Your task to perform on an android device: Open Yahoo.com Image 0: 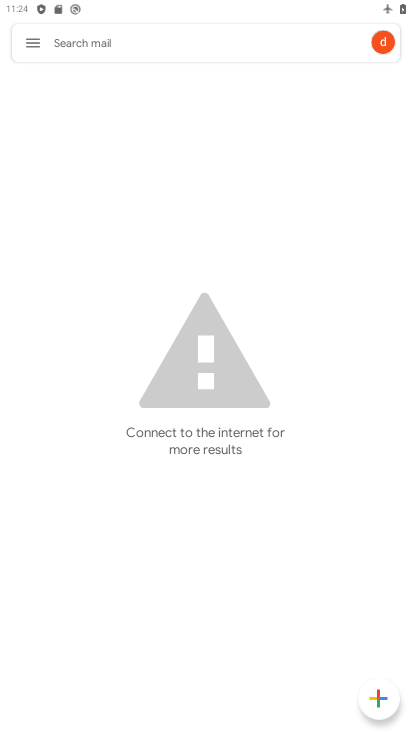
Step 0: press home button
Your task to perform on an android device: Open Yahoo.com Image 1: 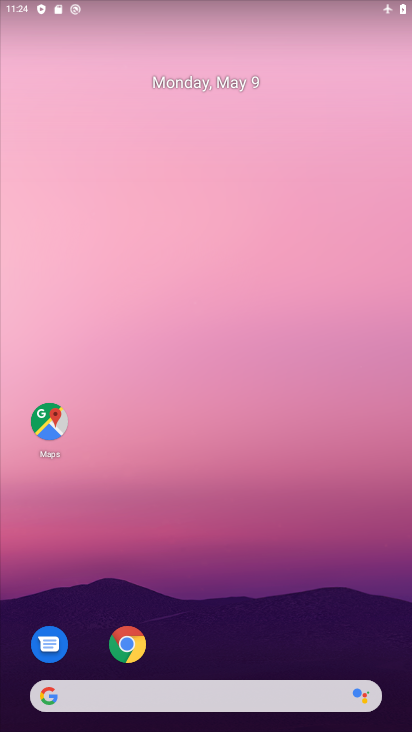
Step 1: click (135, 646)
Your task to perform on an android device: Open Yahoo.com Image 2: 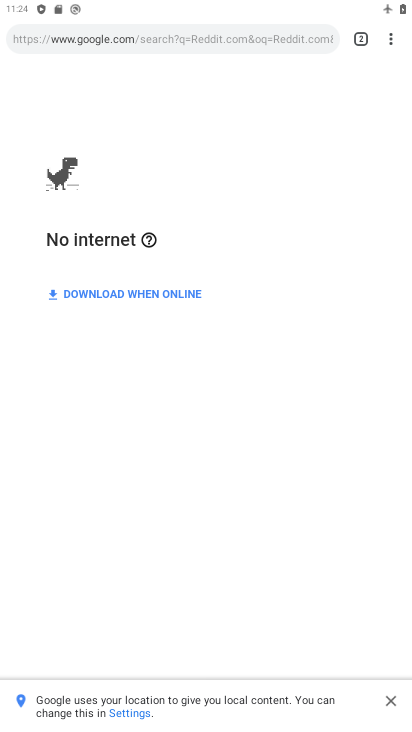
Step 2: click (363, 38)
Your task to perform on an android device: Open Yahoo.com Image 3: 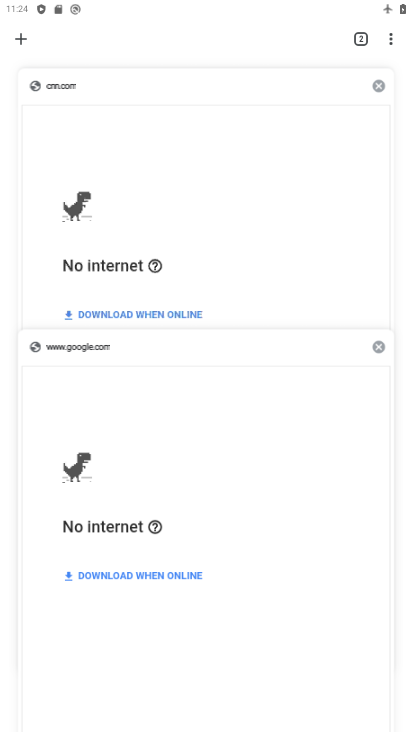
Step 3: click (20, 41)
Your task to perform on an android device: Open Yahoo.com Image 4: 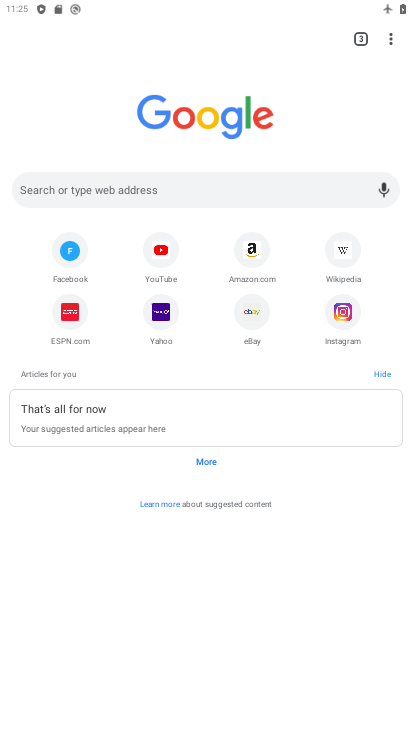
Step 4: click (169, 300)
Your task to perform on an android device: Open Yahoo.com Image 5: 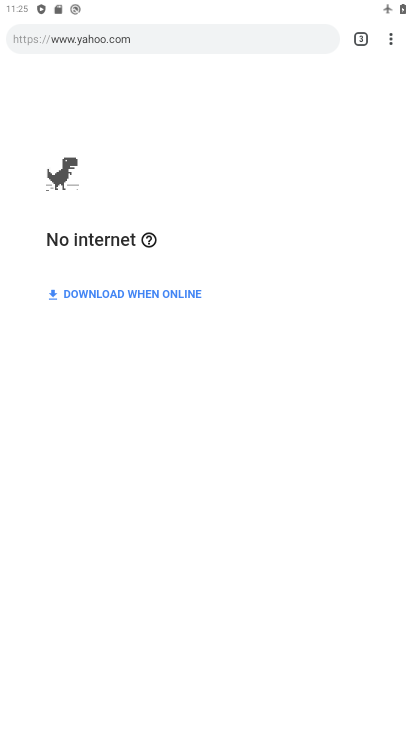
Step 5: task complete